Your task to perform on an android device: turn notification dots on Image 0: 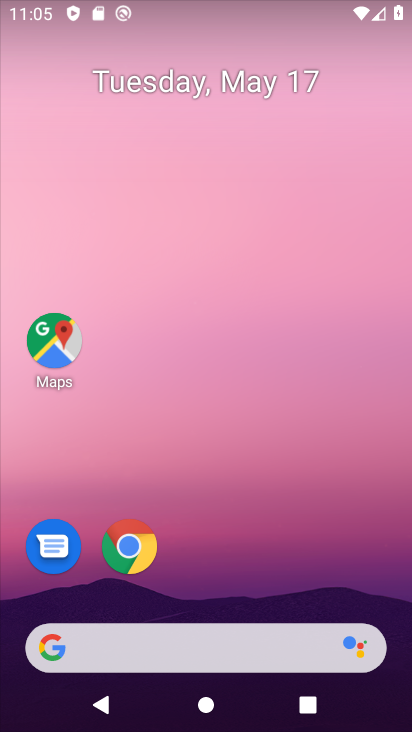
Step 0: drag from (243, 614) to (222, 91)
Your task to perform on an android device: turn notification dots on Image 1: 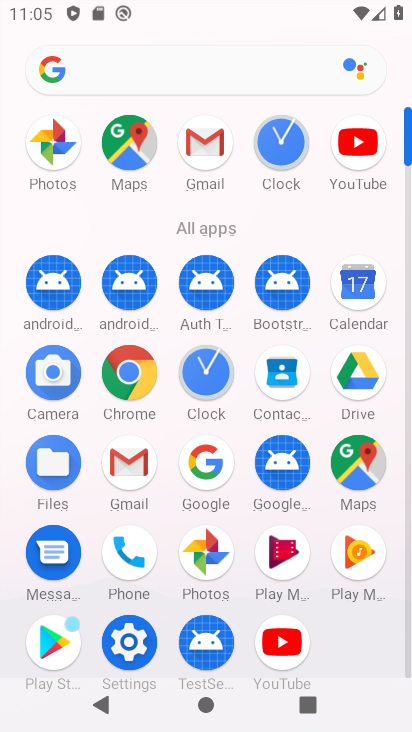
Step 1: click (126, 642)
Your task to perform on an android device: turn notification dots on Image 2: 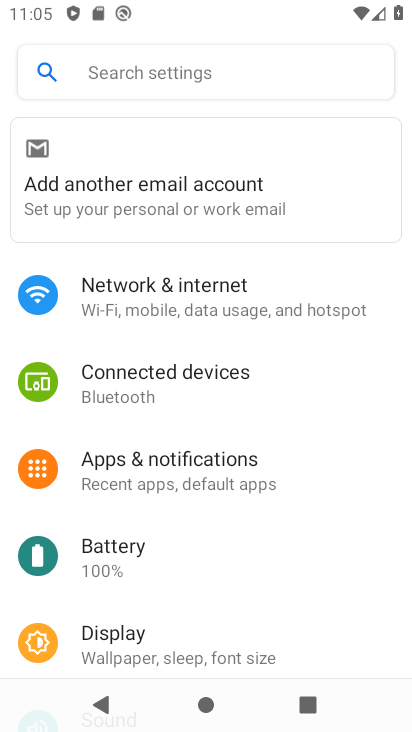
Step 2: click (265, 459)
Your task to perform on an android device: turn notification dots on Image 3: 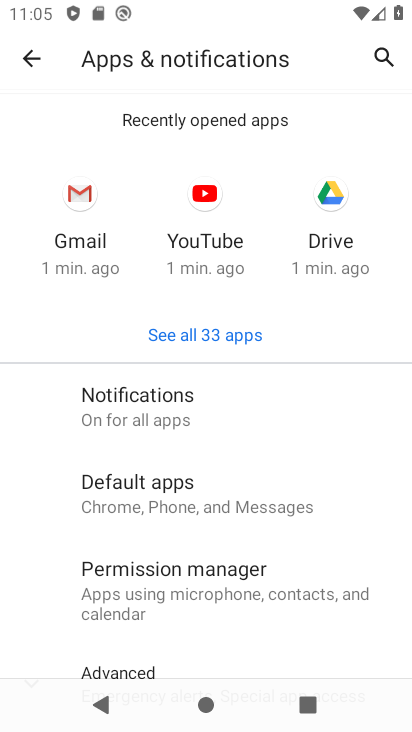
Step 3: click (271, 403)
Your task to perform on an android device: turn notification dots on Image 4: 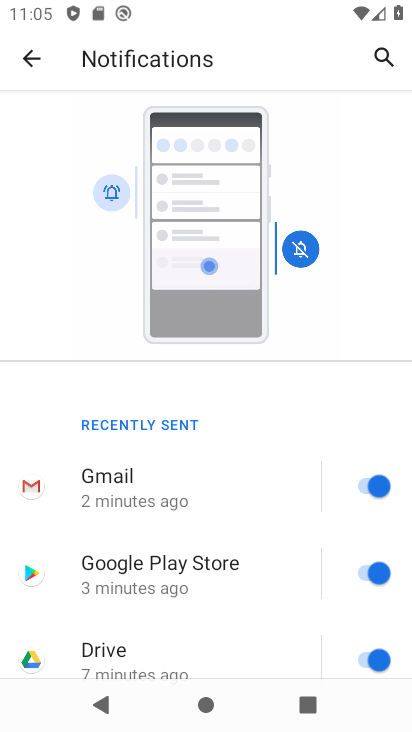
Step 4: drag from (268, 658) to (282, 148)
Your task to perform on an android device: turn notification dots on Image 5: 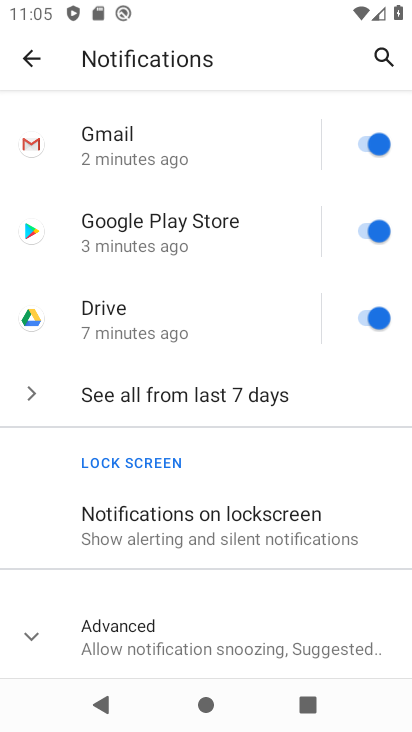
Step 5: click (296, 622)
Your task to perform on an android device: turn notification dots on Image 6: 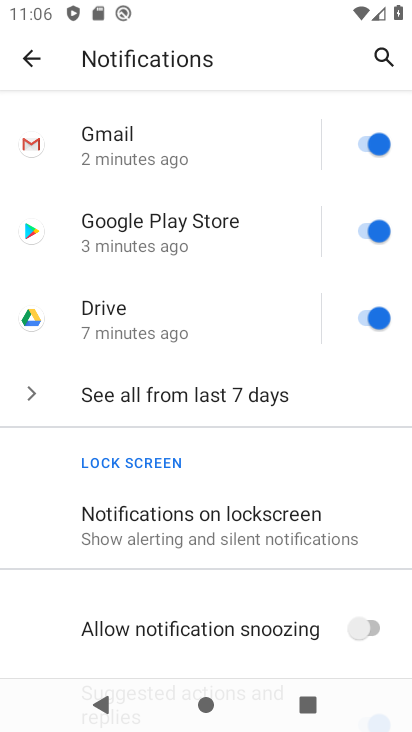
Step 6: task complete